Your task to perform on an android device: turn on data saver in the chrome app Image 0: 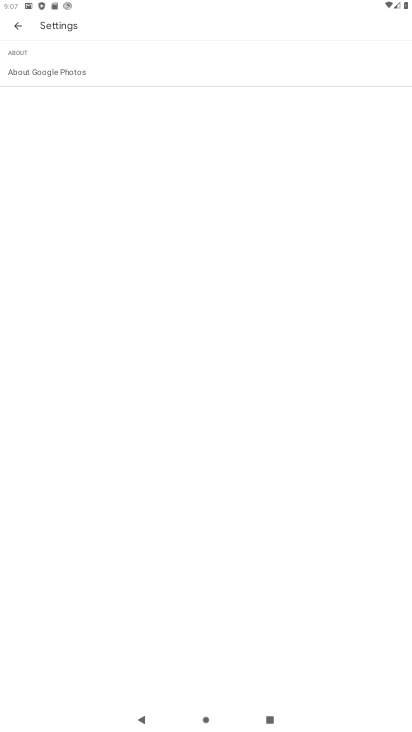
Step 0: press home button
Your task to perform on an android device: turn on data saver in the chrome app Image 1: 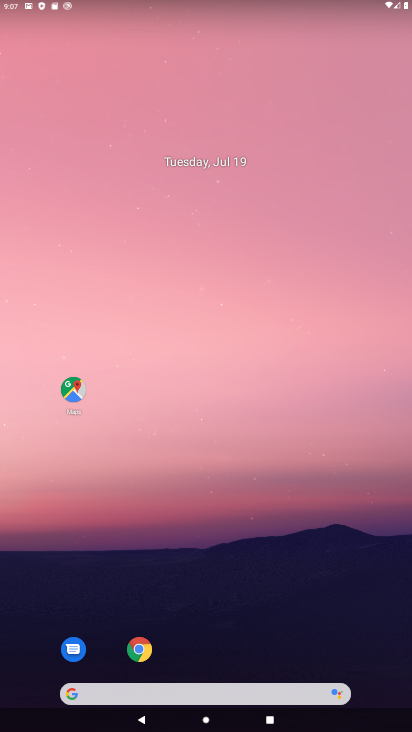
Step 1: drag from (372, 662) to (126, 23)
Your task to perform on an android device: turn on data saver in the chrome app Image 2: 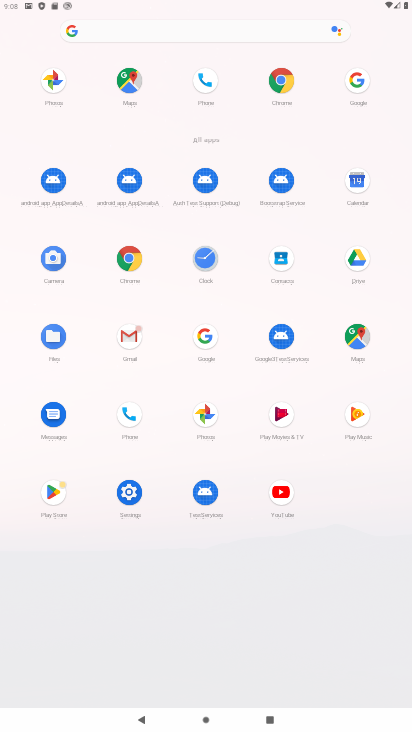
Step 2: click (125, 262)
Your task to perform on an android device: turn on data saver in the chrome app Image 3: 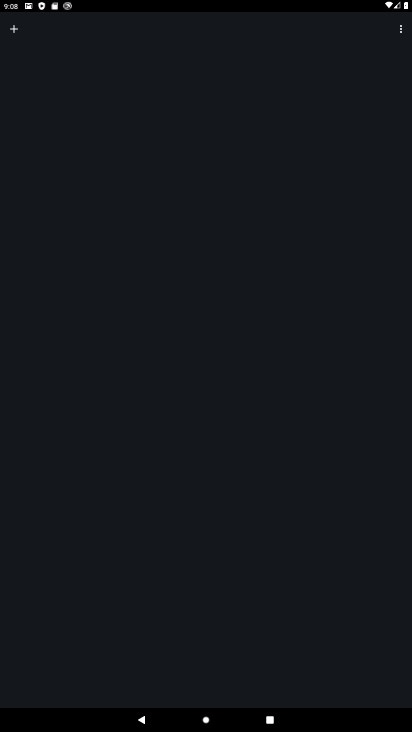
Step 3: click (399, 28)
Your task to perform on an android device: turn on data saver in the chrome app Image 4: 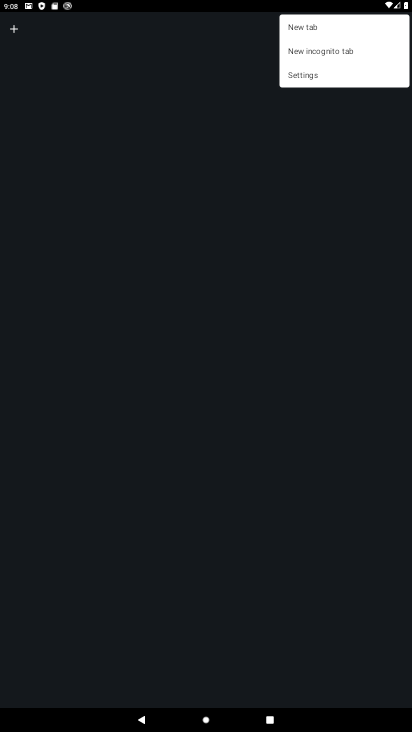
Step 4: click (289, 76)
Your task to perform on an android device: turn on data saver in the chrome app Image 5: 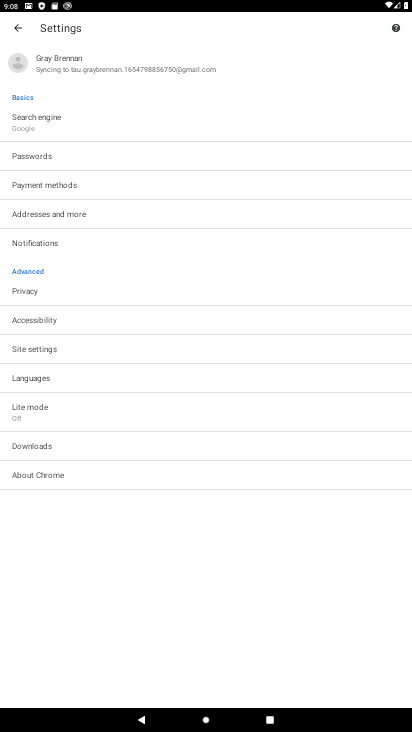
Step 5: click (60, 416)
Your task to perform on an android device: turn on data saver in the chrome app Image 6: 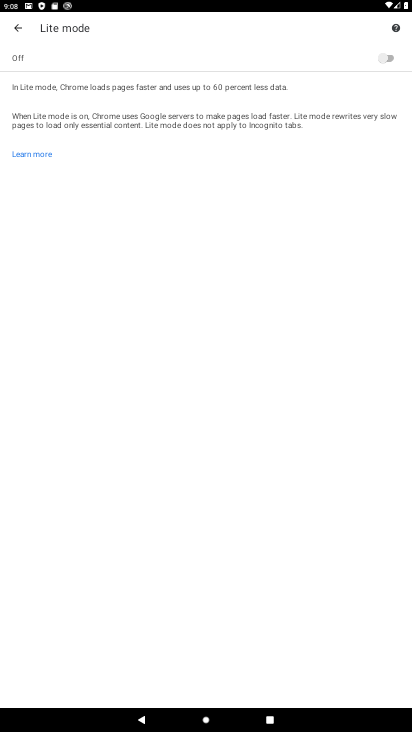
Step 6: click (376, 61)
Your task to perform on an android device: turn on data saver in the chrome app Image 7: 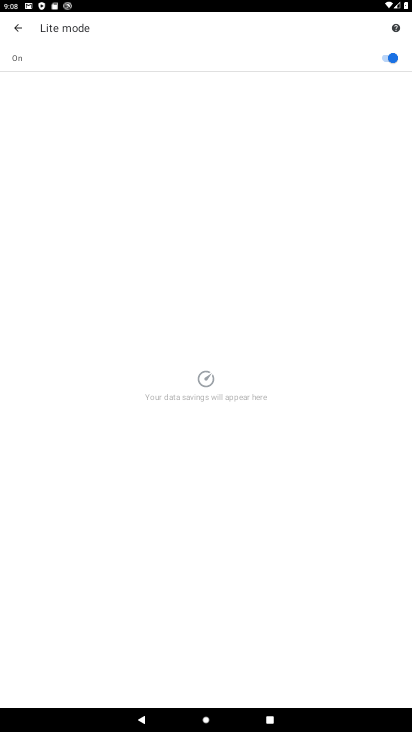
Step 7: task complete